Your task to perform on an android device: Toggle the flashlight Image 0: 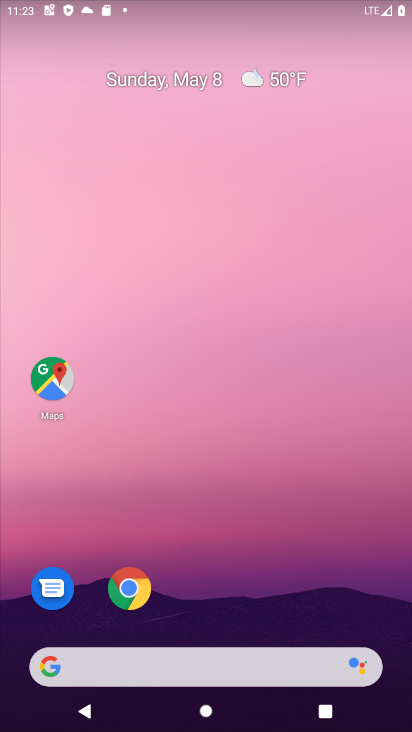
Step 0: drag from (249, 178) to (215, 675)
Your task to perform on an android device: Toggle the flashlight Image 1: 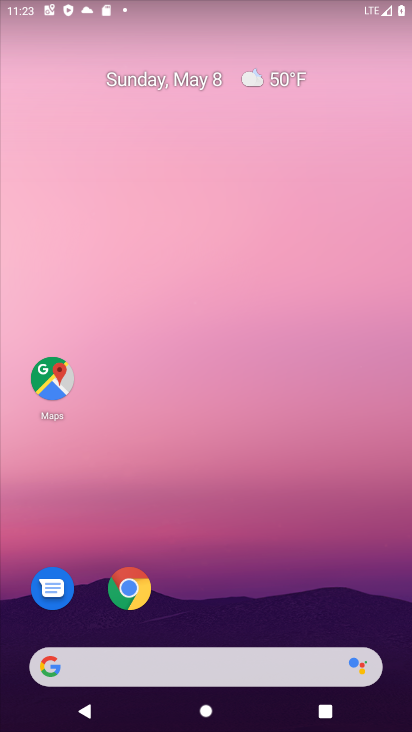
Step 1: task complete